Your task to perform on an android device: Open calendar and show me the second week of next month Image 0: 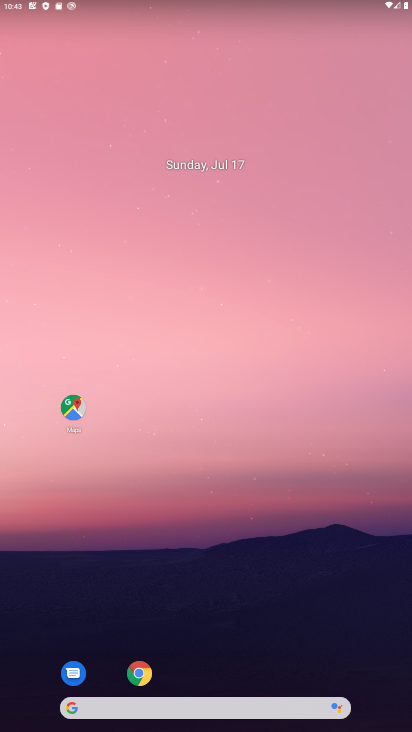
Step 0: drag from (284, 559) to (232, 197)
Your task to perform on an android device: Open calendar and show me the second week of next month Image 1: 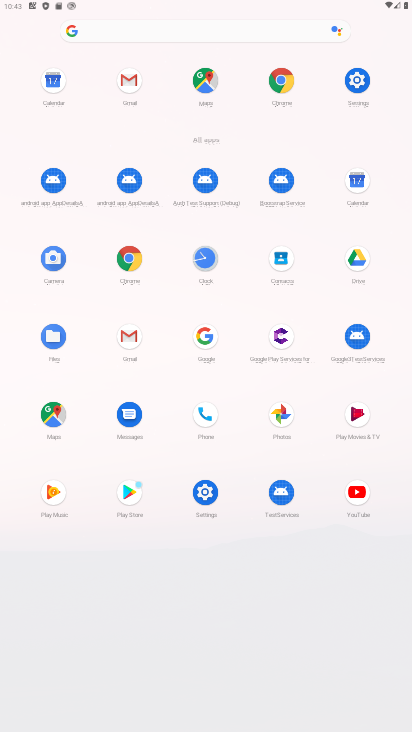
Step 1: click (356, 177)
Your task to perform on an android device: Open calendar and show me the second week of next month Image 2: 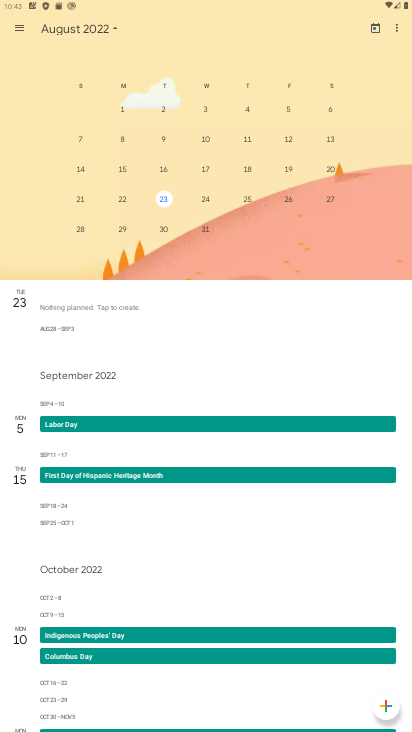
Step 2: click (207, 139)
Your task to perform on an android device: Open calendar and show me the second week of next month Image 3: 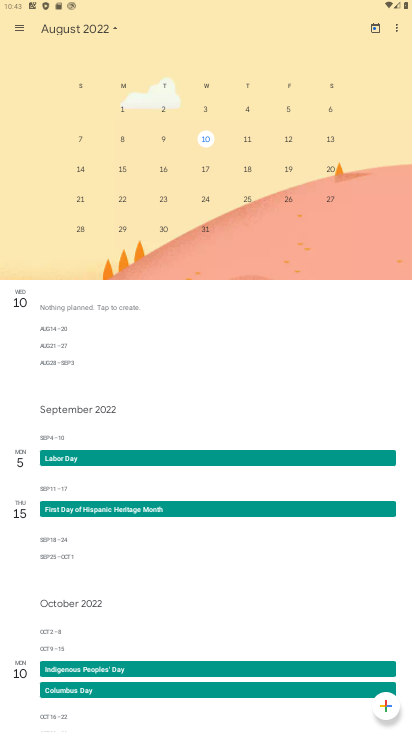
Step 3: task complete